Your task to perform on an android device: toggle improve location accuracy Image 0: 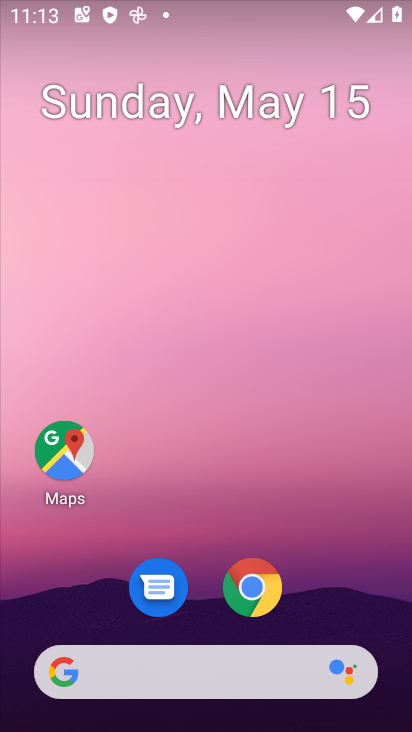
Step 0: drag from (401, 622) to (307, 161)
Your task to perform on an android device: toggle improve location accuracy Image 1: 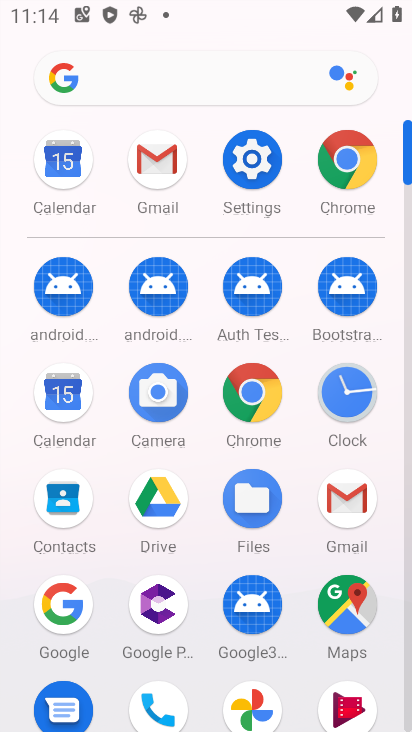
Step 1: click (244, 167)
Your task to perform on an android device: toggle improve location accuracy Image 2: 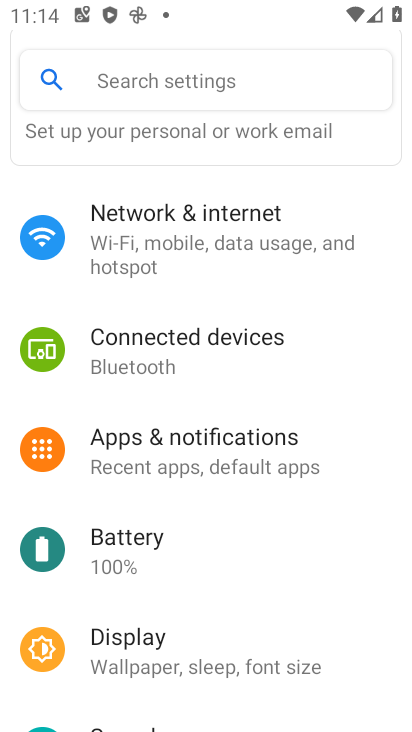
Step 2: drag from (84, 622) to (168, 346)
Your task to perform on an android device: toggle improve location accuracy Image 3: 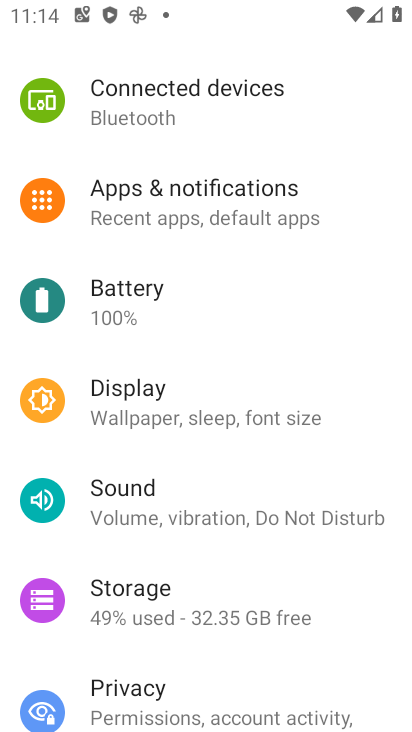
Step 3: drag from (148, 573) to (242, 340)
Your task to perform on an android device: toggle improve location accuracy Image 4: 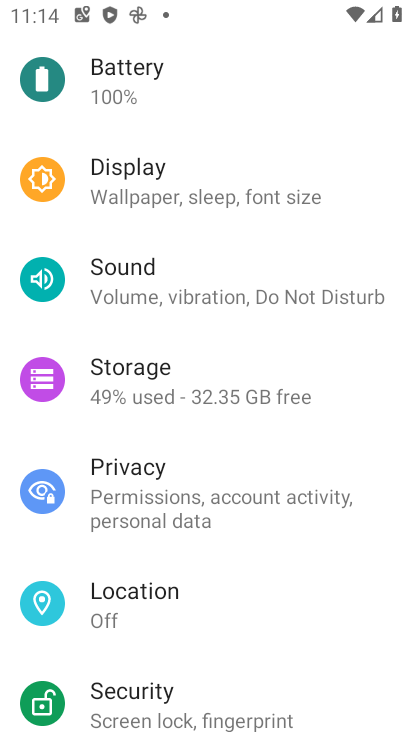
Step 4: click (171, 601)
Your task to perform on an android device: toggle improve location accuracy Image 5: 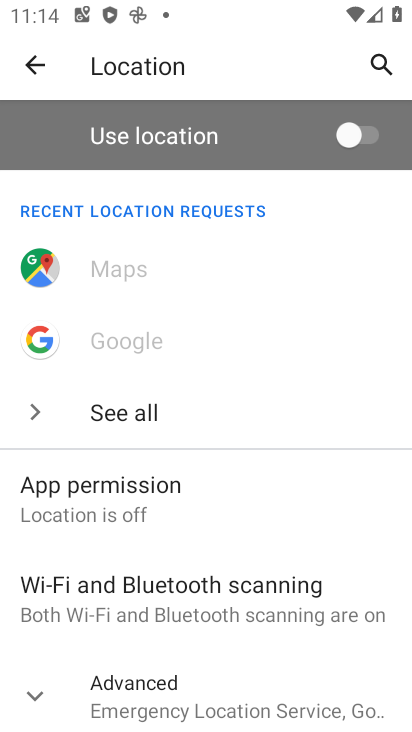
Step 5: drag from (126, 630) to (144, 443)
Your task to perform on an android device: toggle improve location accuracy Image 6: 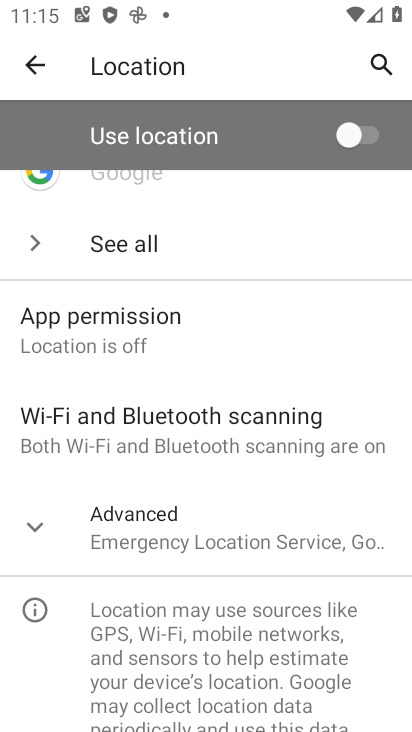
Step 6: click (61, 522)
Your task to perform on an android device: toggle improve location accuracy Image 7: 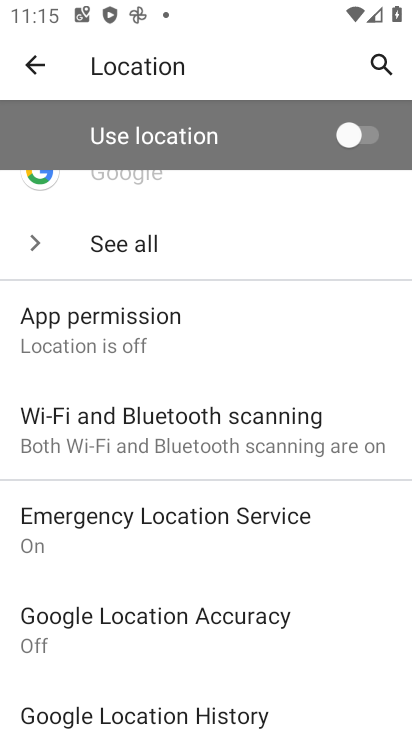
Step 7: click (156, 617)
Your task to perform on an android device: toggle improve location accuracy Image 8: 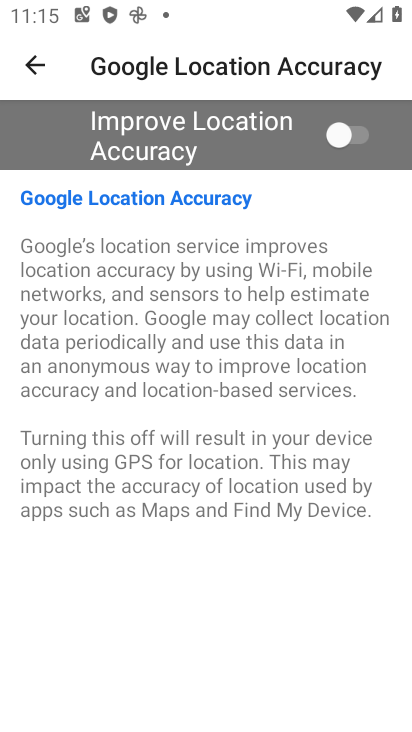
Step 8: click (330, 134)
Your task to perform on an android device: toggle improve location accuracy Image 9: 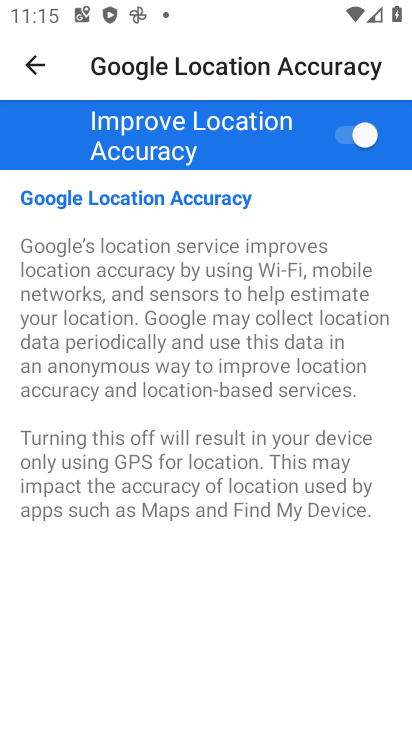
Step 9: task complete